Your task to perform on an android device: Open network settings Image 0: 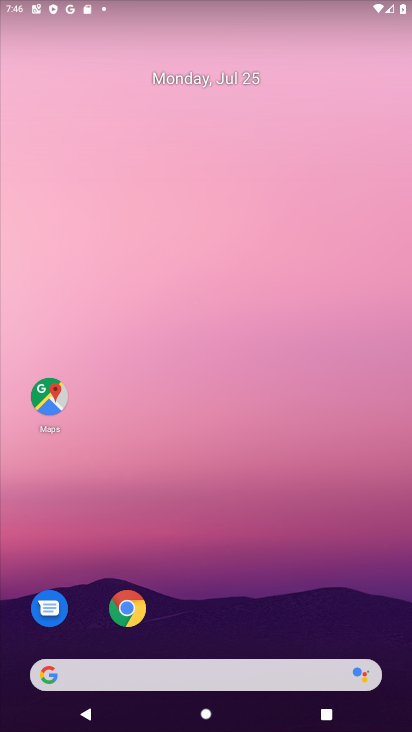
Step 0: drag from (194, 705) to (173, 19)
Your task to perform on an android device: Open network settings Image 1: 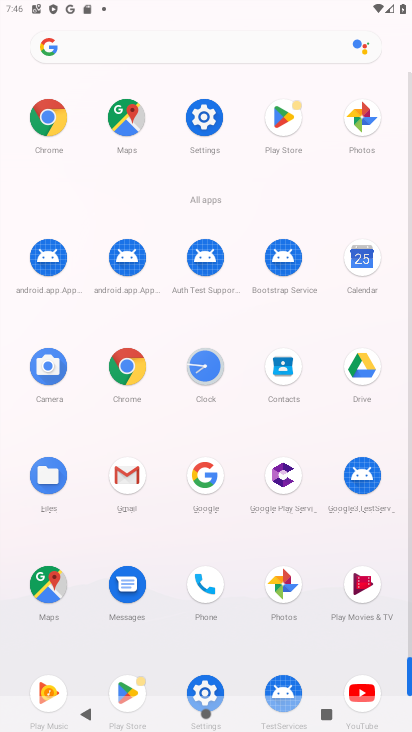
Step 1: click (201, 137)
Your task to perform on an android device: Open network settings Image 2: 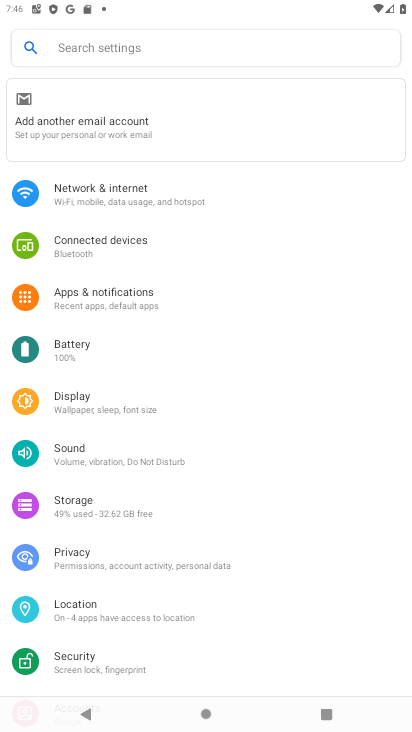
Step 2: click (149, 187)
Your task to perform on an android device: Open network settings Image 3: 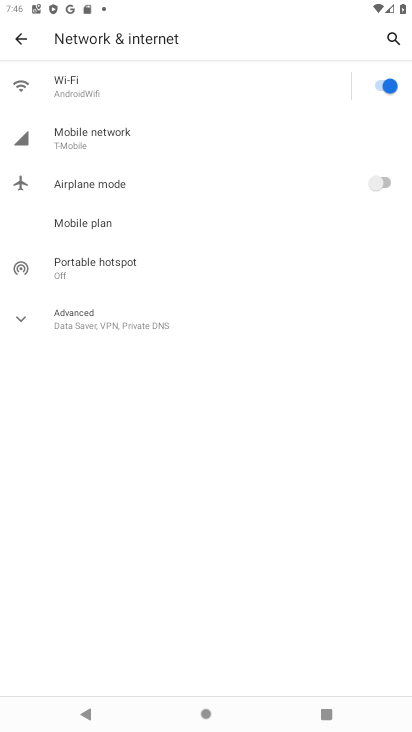
Step 3: click (137, 142)
Your task to perform on an android device: Open network settings Image 4: 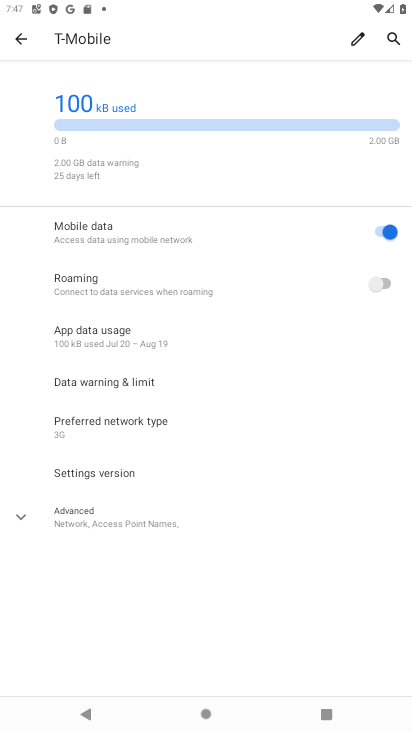
Step 4: task complete